Your task to perform on an android device: Open Chrome and go to settings Image 0: 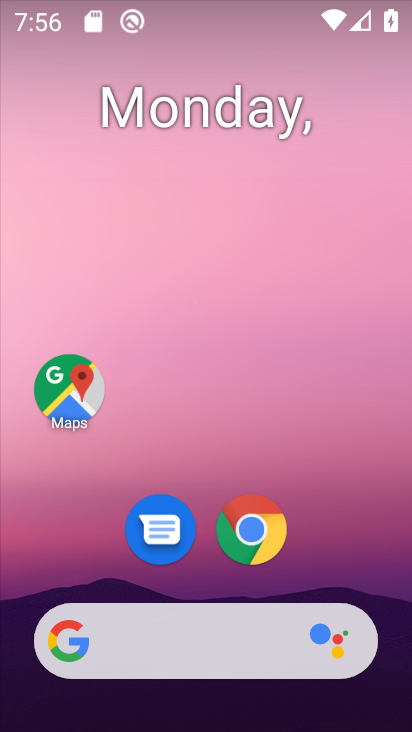
Step 0: click (250, 535)
Your task to perform on an android device: Open Chrome and go to settings Image 1: 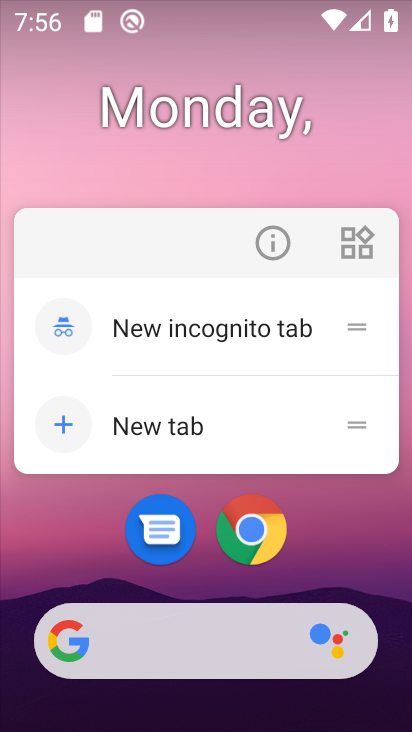
Step 1: click (250, 534)
Your task to perform on an android device: Open Chrome and go to settings Image 2: 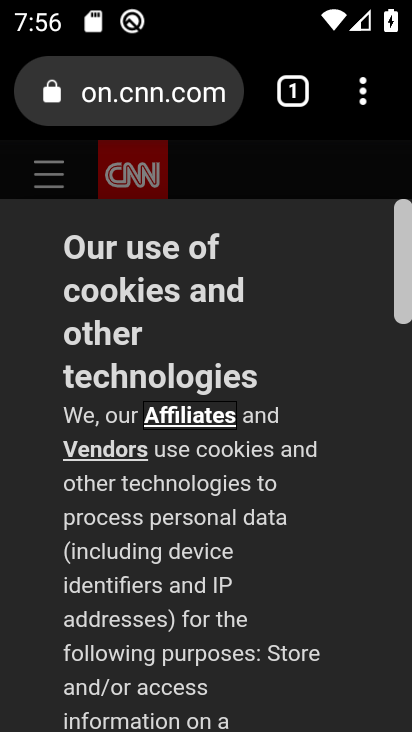
Step 2: click (371, 98)
Your task to perform on an android device: Open Chrome and go to settings Image 3: 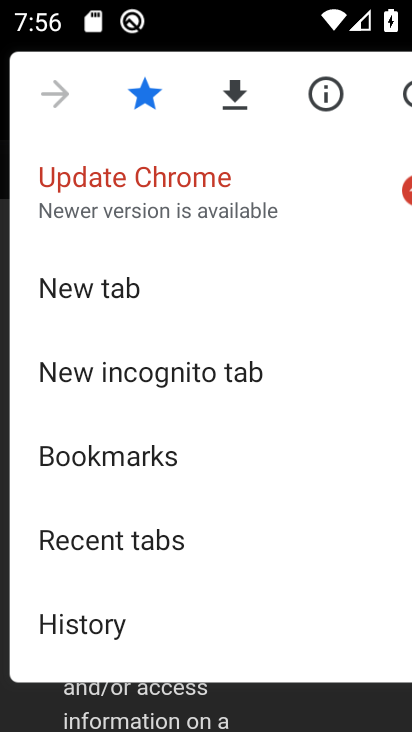
Step 3: drag from (151, 613) to (195, 142)
Your task to perform on an android device: Open Chrome and go to settings Image 4: 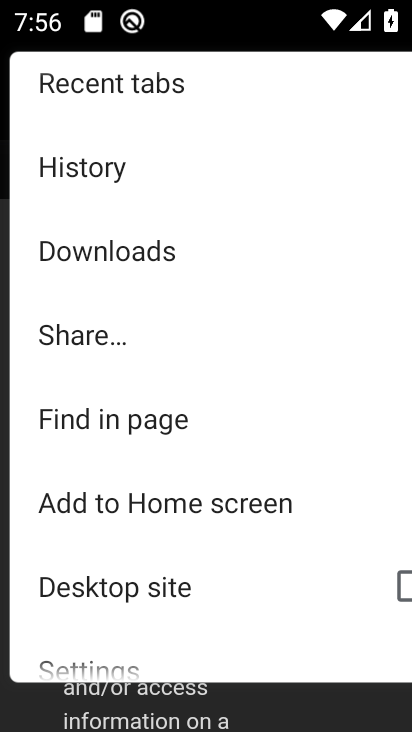
Step 4: drag from (164, 631) to (205, 241)
Your task to perform on an android device: Open Chrome and go to settings Image 5: 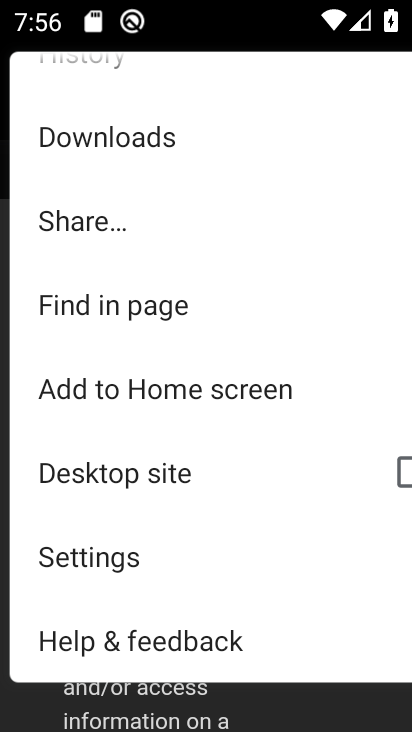
Step 5: click (88, 556)
Your task to perform on an android device: Open Chrome and go to settings Image 6: 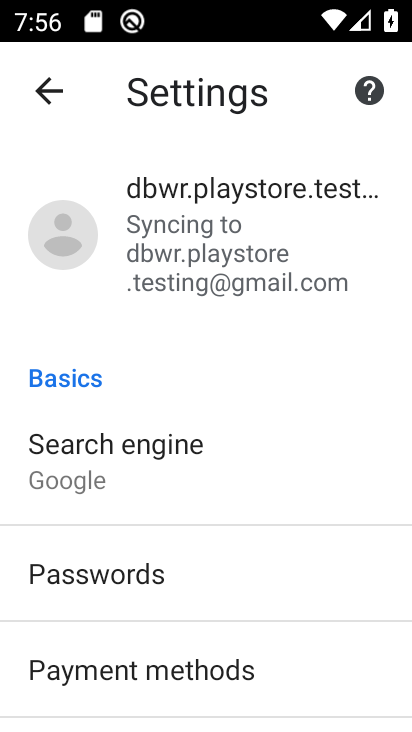
Step 6: task complete